Your task to perform on an android device: turn smart compose on in the gmail app Image 0: 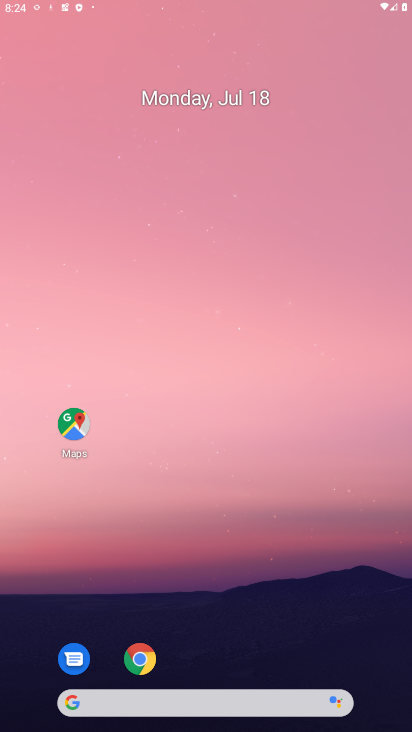
Step 0: click (184, 29)
Your task to perform on an android device: turn smart compose on in the gmail app Image 1: 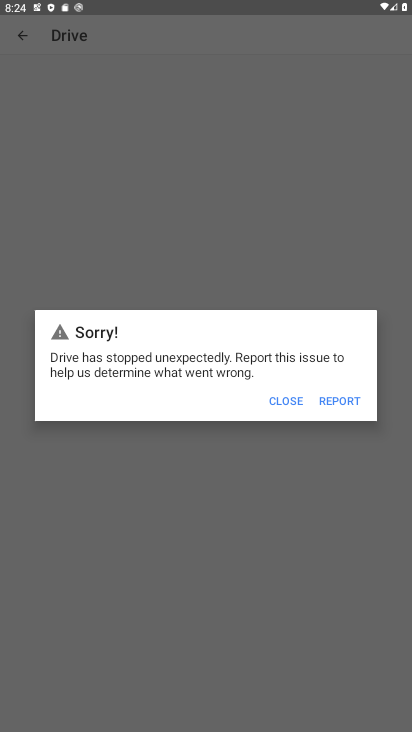
Step 1: drag from (205, 659) to (167, 11)
Your task to perform on an android device: turn smart compose on in the gmail app Image 2: 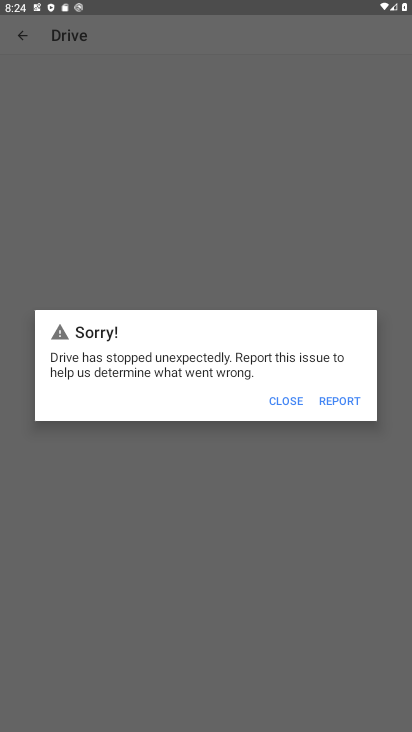
Step 2: click (278, 401)
Your task to perform on an android device: turn smart compose on in the gmail app Image 3: 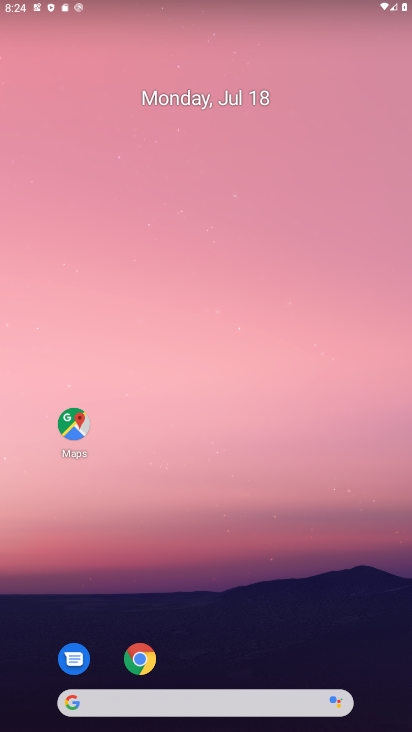
Step 3: drag from (100, 37) to (118, 80)
Your task to perform on an android device: turn smart compose on in the gmail app Image 4: 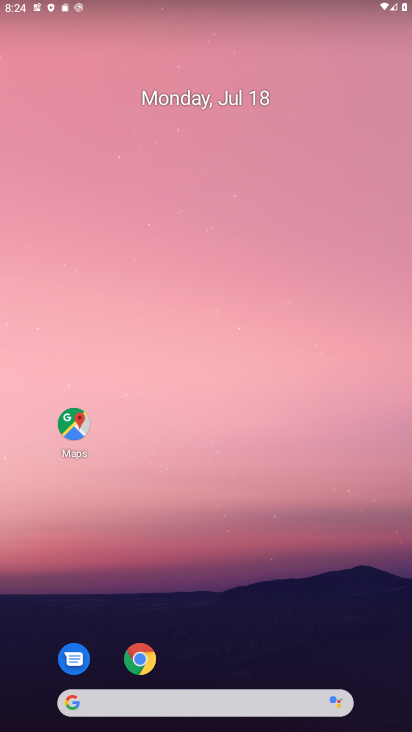
Step 4: click (77, 433)
Your task to perform on an android device: turn smart compose on in the gmail app Image 5: 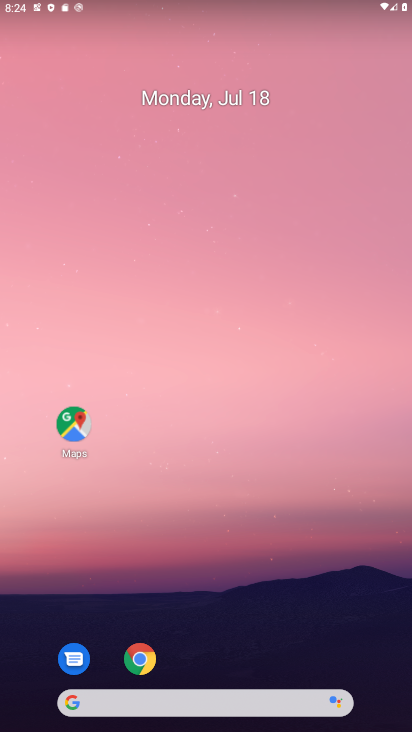
Step 5: click (72, 430)
Your task to perform on an android device: turn smart compose on in the gmail app Image 6: 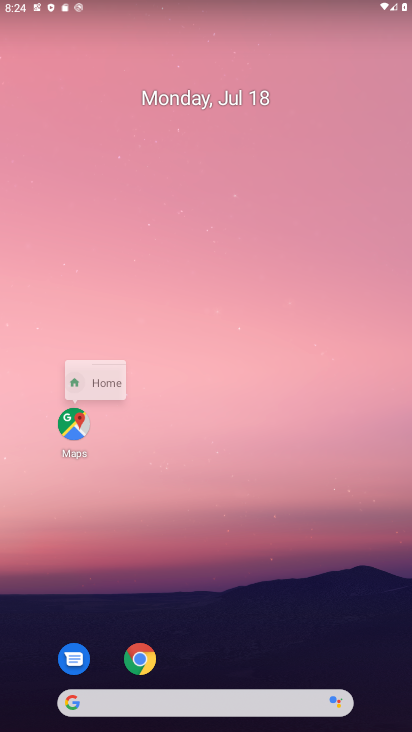
Step 6: click (68, 426)
Your task to perform on an android device: turn smart compose on in the gmail app Image 7: 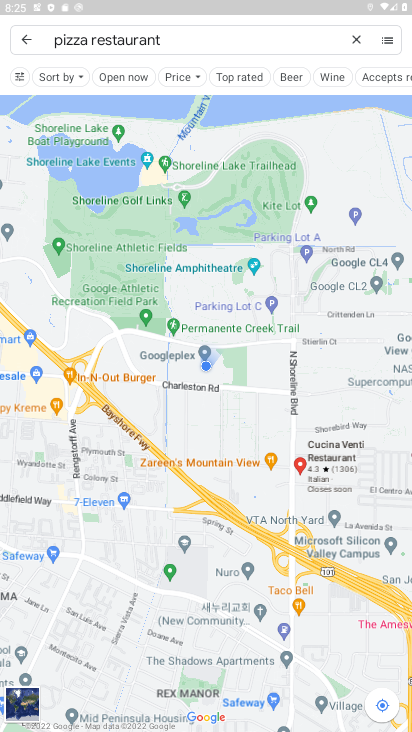
Step 7: press back button
Your task to perform on an android device: turn smart compose on in the gmail app Image 8: 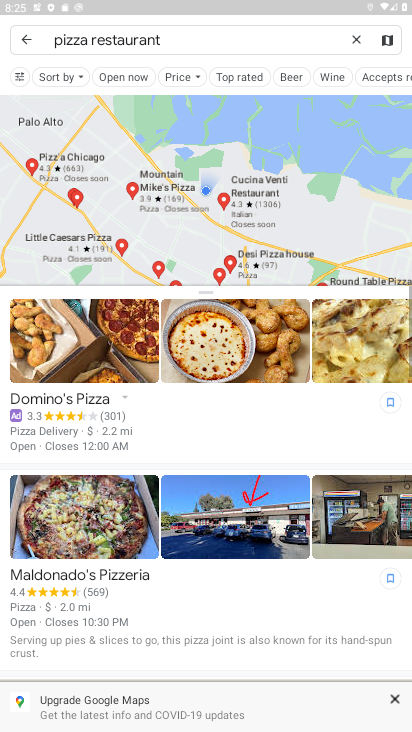
Step 8: press home button
Your task to perform on an android device: turn smart compose on in the gmail app Image 9: 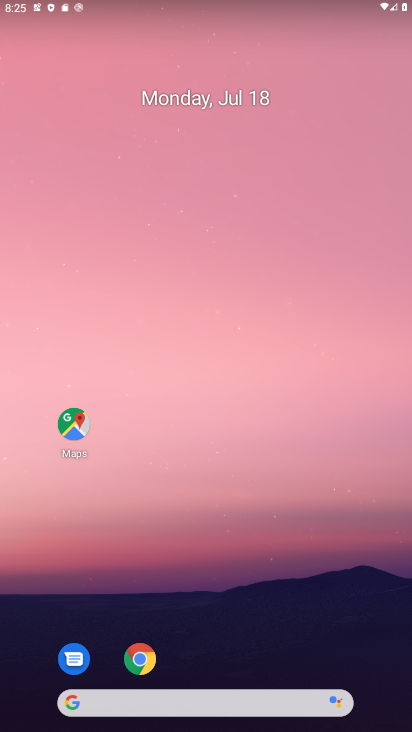
Step 9: drag from (253, 727) to (107, 66)
Your task to perform on an android device: turn smart compose on in the gmail app Image 10: 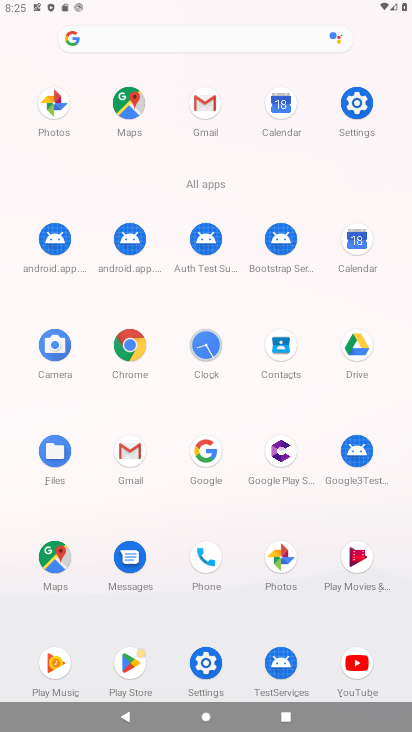
Step 10: click (202, 101)
Your task to perform on an android device: turn smart compose on in the gmail app Image 11: 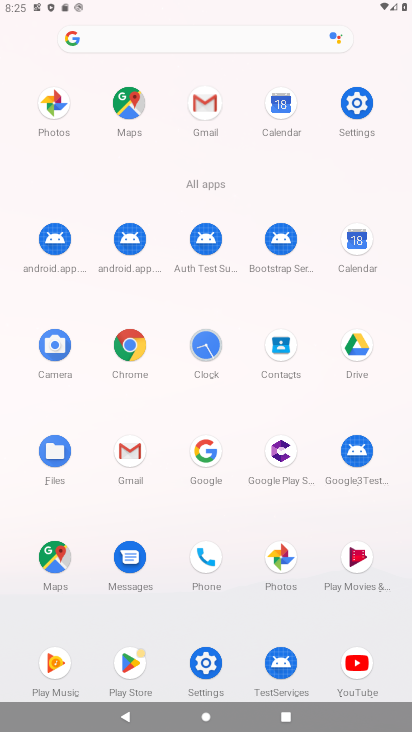
Step 11: click (202, 101)
Your task to perform on an android device: turn smart compose on in the gmail app Image 12: 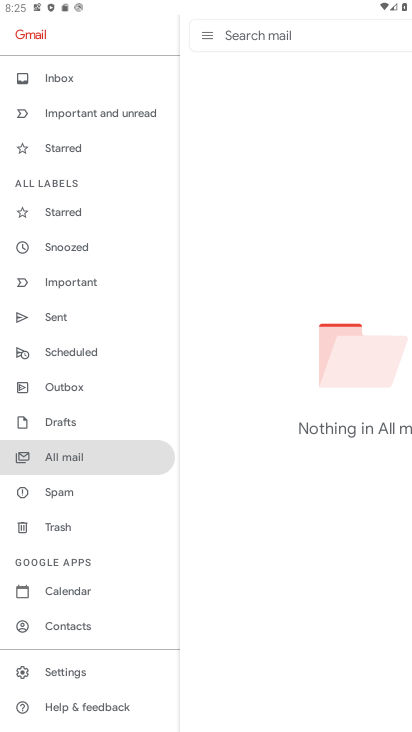
Step 12: click (58, 673)
Your task to perform on an android device: turn smart compose on in the gmail app Image 13: 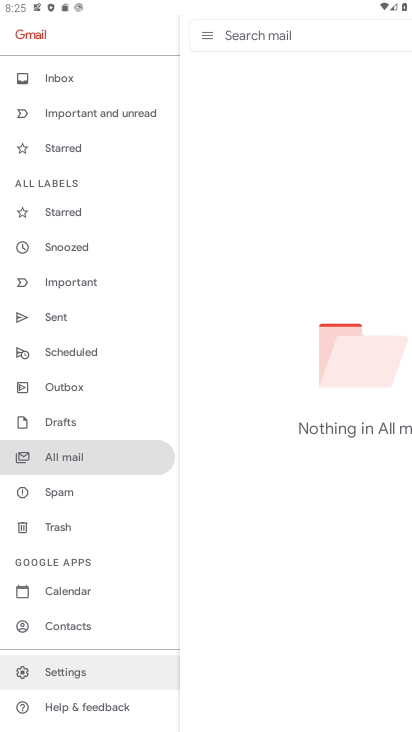
Step 13: click (58, 673)
Your task to perform on an android device: turn smart compose on in the gmail app Image 14: 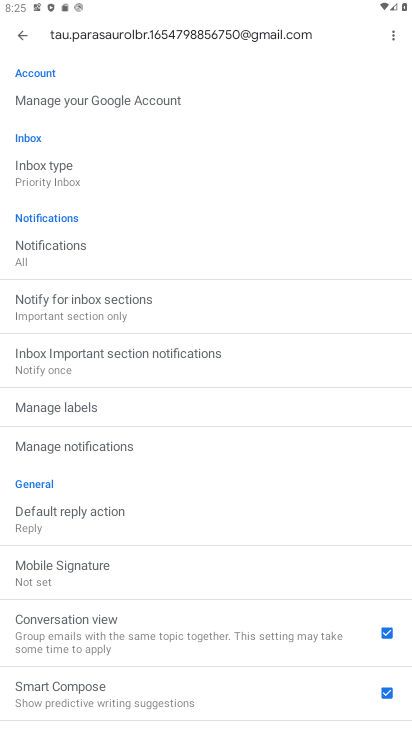
Step 14: task complete